Your task to perform on an android device: turn on the 12-hour format for clock Image 0: 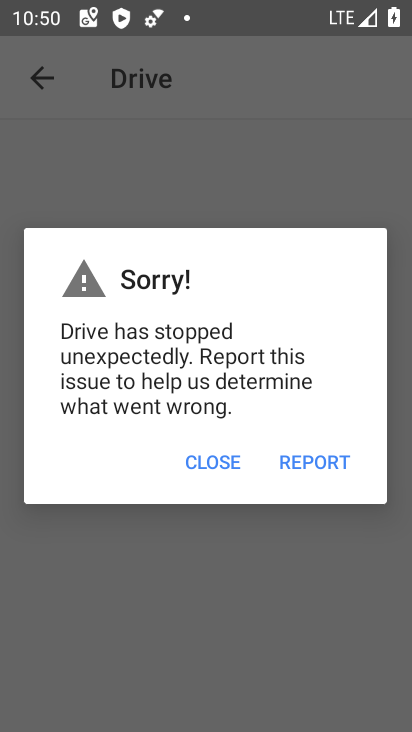
Step 0: press home button
Your task to perform on an android device: turn on the 12-hour format for clock Image 1: 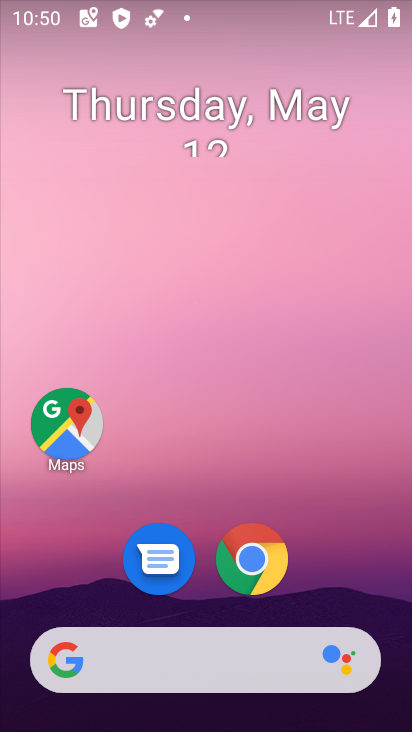
Step 1: drag from (202, 599) to (180, 180)
Your task to perform on an android device: turn on the 12-hour format for clock Image 2: 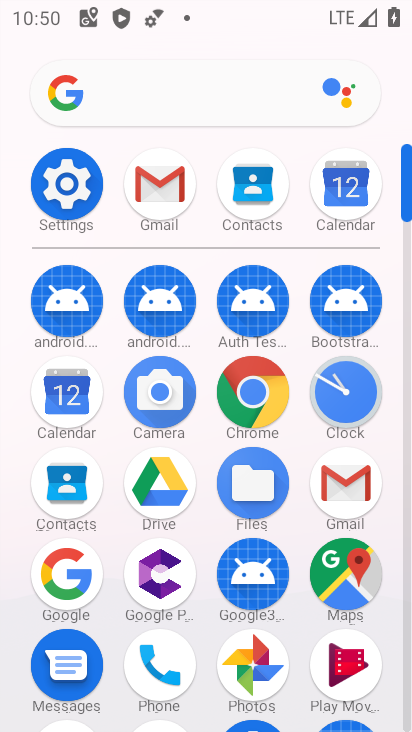
Step 2: click (346, 365)
Your task to perform on an android device: turn on the 12-hour format for clock Image 3: 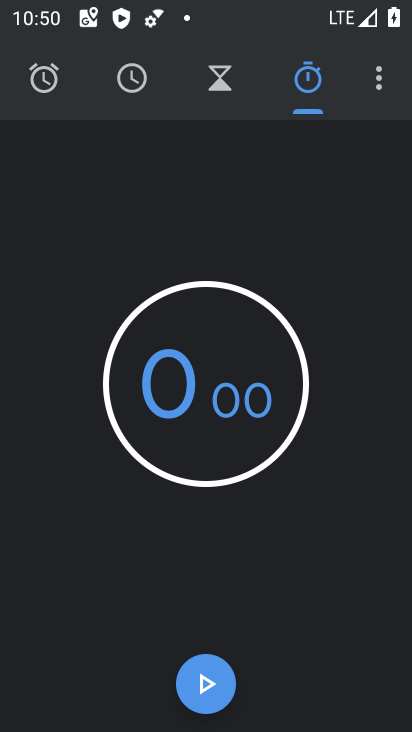
Step 3: click (368, 75)
Your task to perform on an android device: turn on the 12-hour format for clock Image 4: 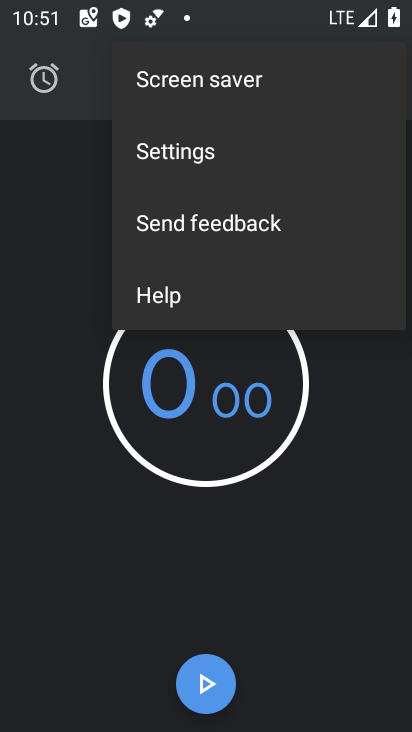
Step 4: click (239, 166)
Your task to perform on an android device: turn on the 12-hour format for clock Image 5: 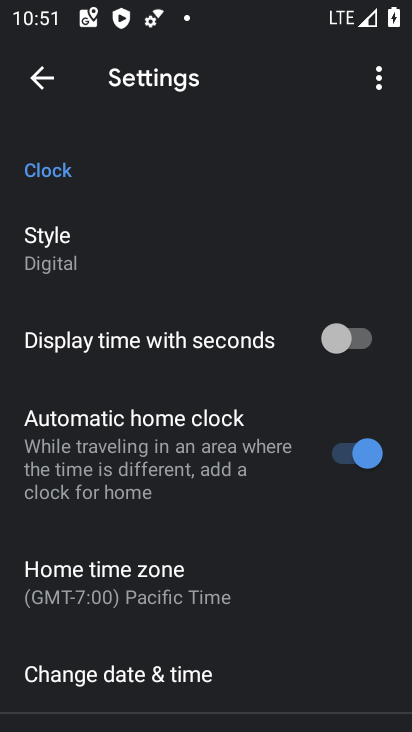
Step 5: drag from (210, 600) to (215, 290)
Your task to perform on an android device: turn on the 12-hour format for clock Image 6: 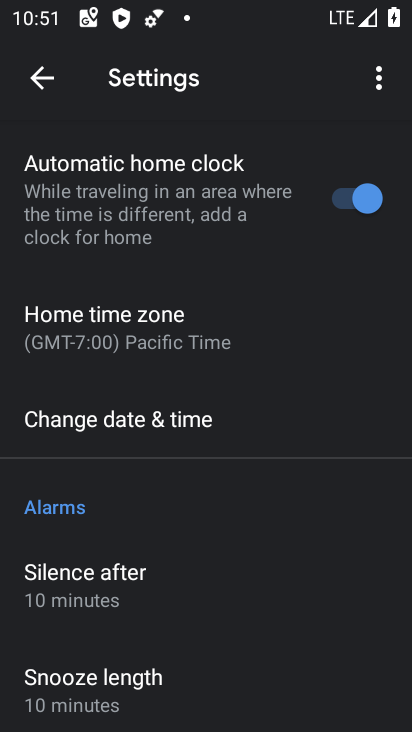
Step 6: click (205, 433)
Your task to perform on an android device: turn on the 12-hour format for clock Image 7: 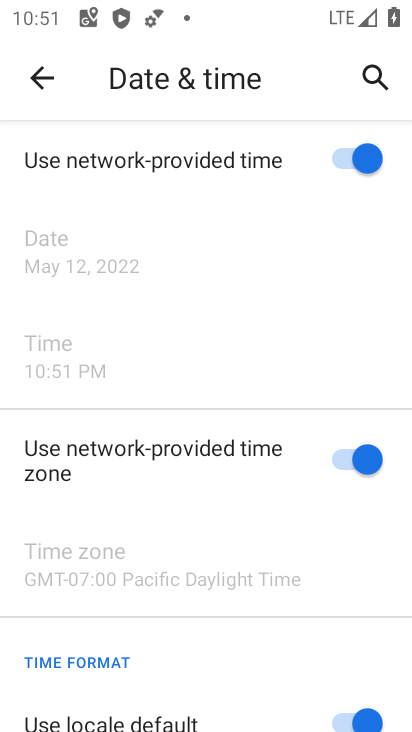
Step 7: task complete